Your task to perform on an android device: Open battery settings Image 0: 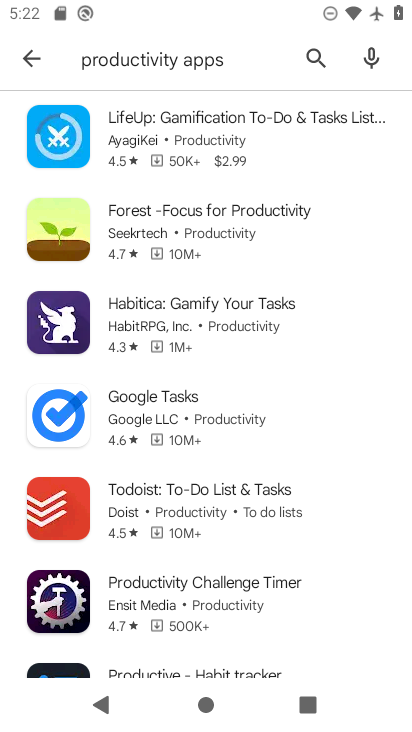
Step 0: press home button
Your task to perform on an android device: Open battery settings Image 1: 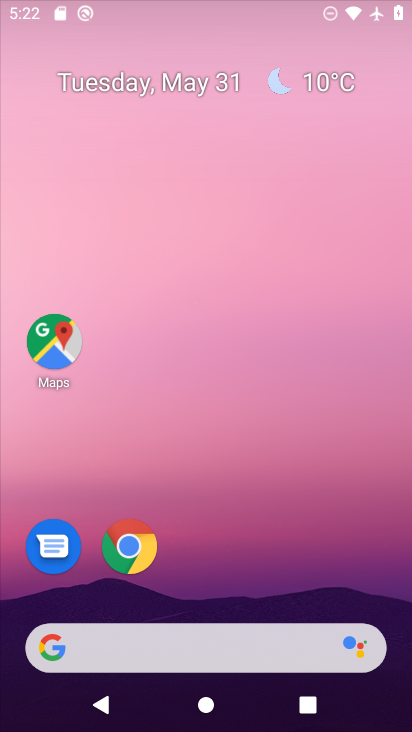
Step 1: drag from (321, 456) to (208, 53)
Your task to perform on an android device: Open battery settings Image 2: 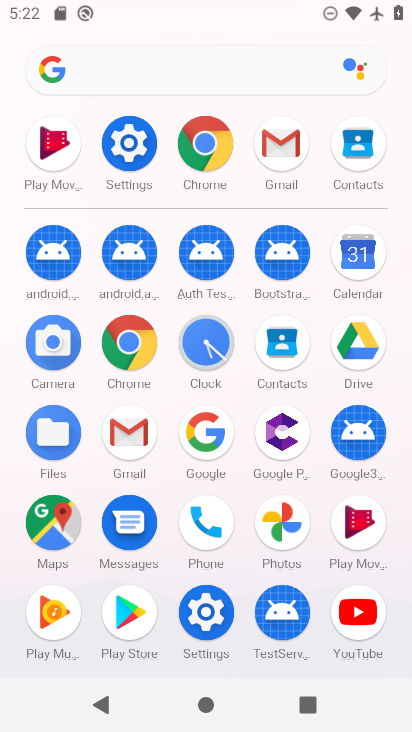
Step 2: click (136, 116)
Your task to perform on an android device: Open battery settings Image 3: 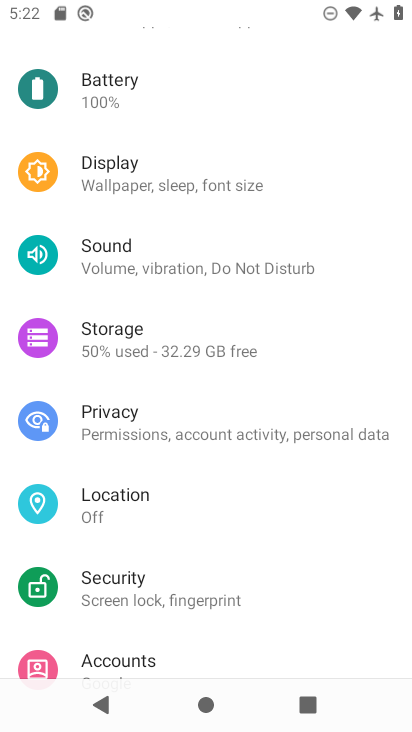
Step 3: click (163, 101)
Your task to perform on an android device: Open battery settings Image 4: 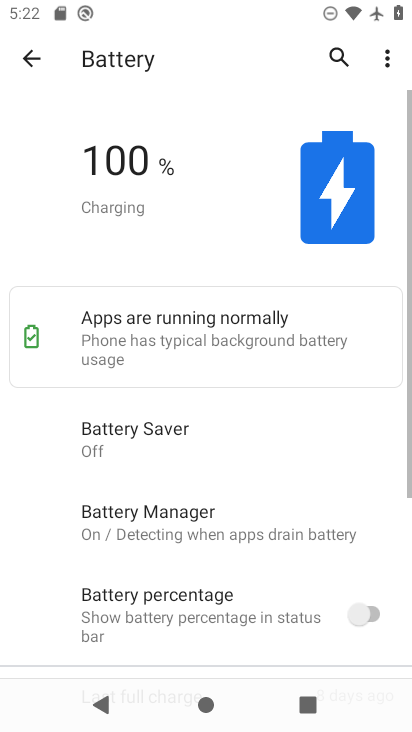
Step 4: task complete